Your task to perform on an android device: empty trash in google photos Image 0: 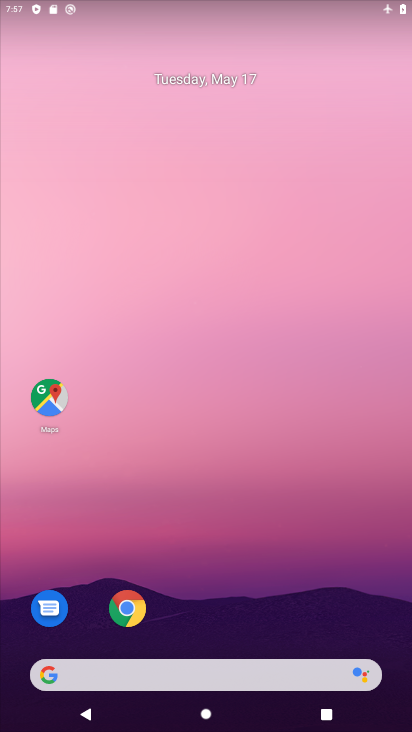
Step 0: drag from (237, 583) to (280, 206)
Your task to perform on an android device: empty trash in google photos Image 1: 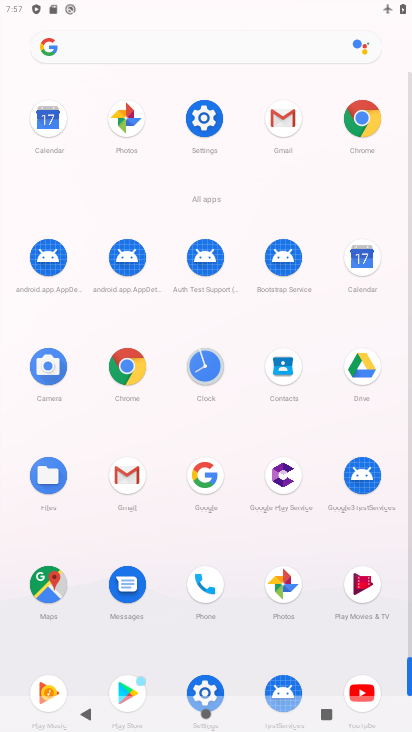
Step 1: drag from (169, 531) to (218, 283)
Your task to perform on an android device: empty trash in google photos Image 2: 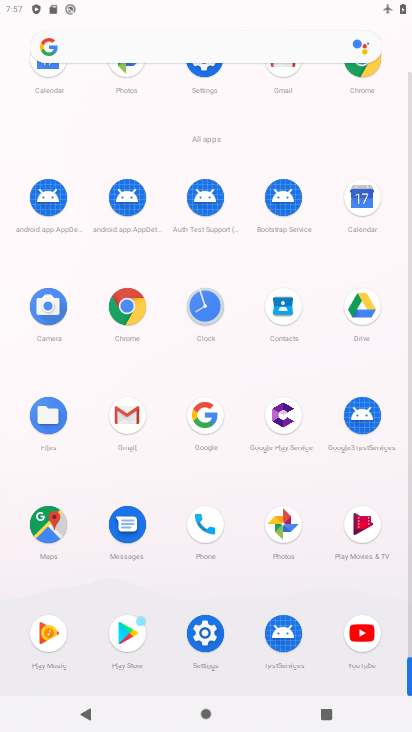
Step 2: click (286, 521)
Your task to perform on an android device: empty trash in google photos Image 3: 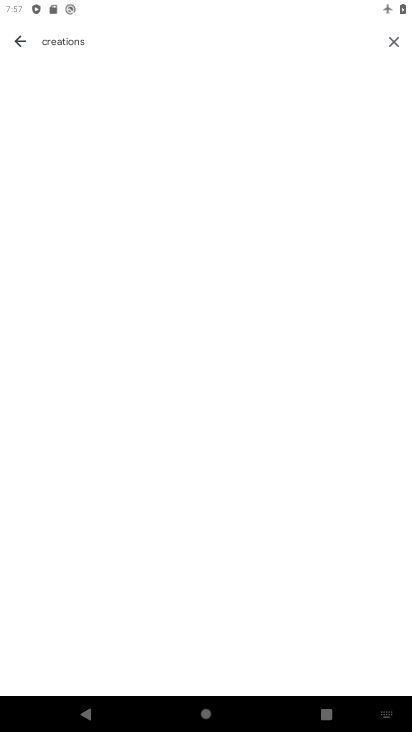
Step 3: click (395, 43)
Your task to perform on an android device: empty trash in google photos Image 4: 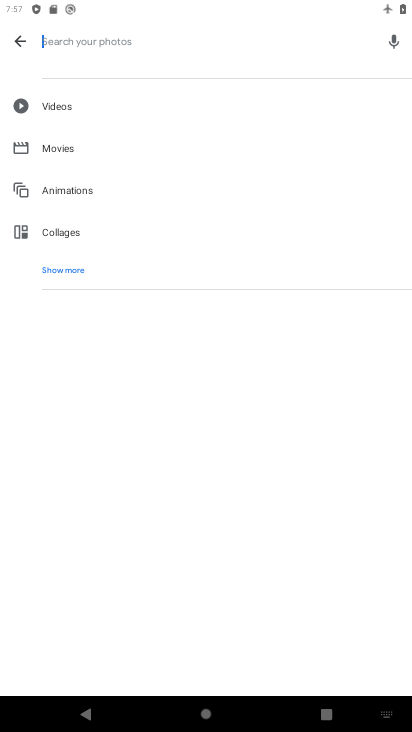
Step 4: click (13, 44)
Your task to perform on an android device: empty trash in google photos Image 5: 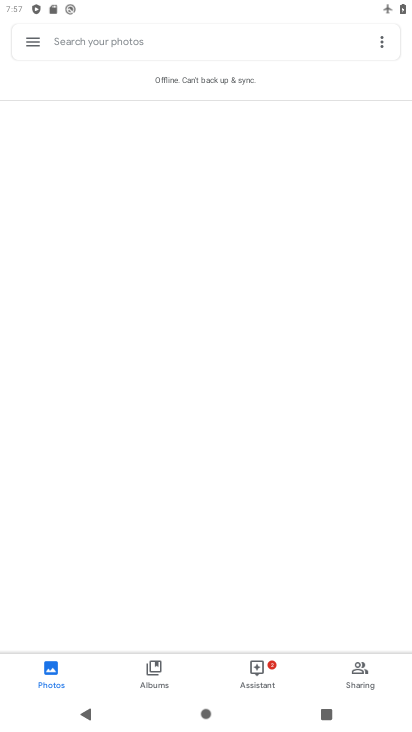
Step 5: click (33, 44)
Your task to perform on an android device: empty trash in google photos Image 6: 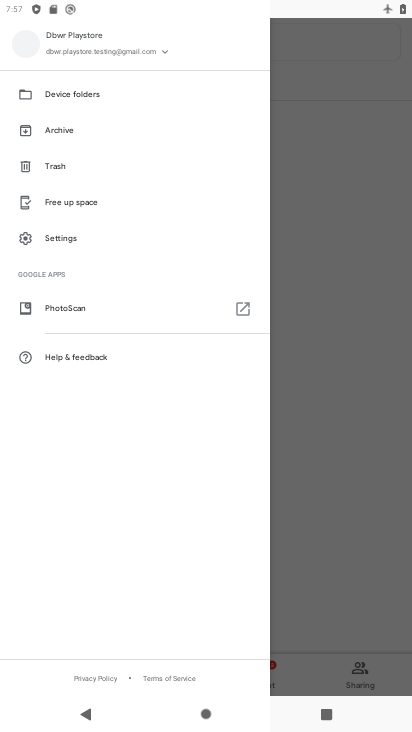
Step 6: click (98, 163)
Your task to perform on an android device: empty trash in google photos Image 7: 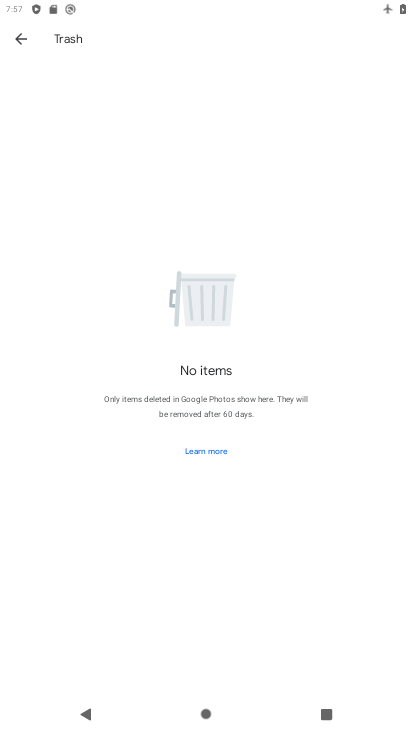
Step 7: task complete